Your task to perform on an android device: Open accessibility settings Image 0: 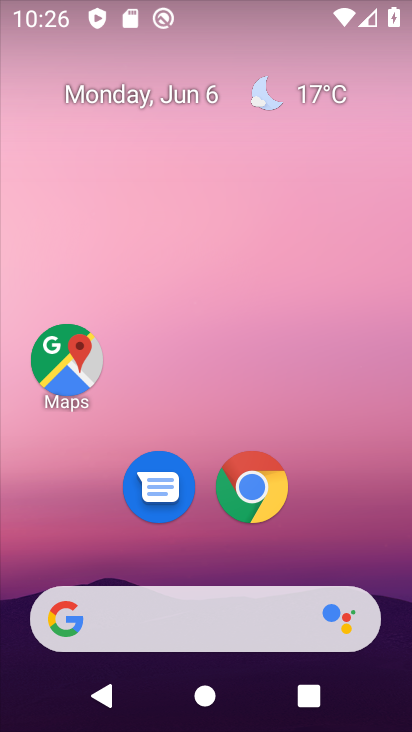
Step 0: drag from (158, 717) to (168, 43)
Your task to perform on an android device: Open accessibility settings Image 1: 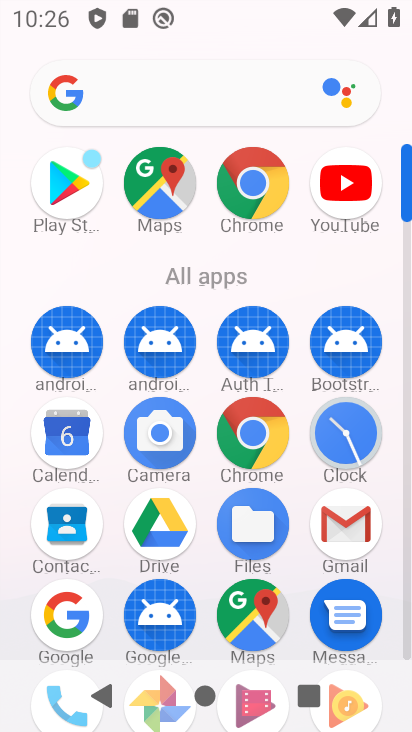
Step 1: drag from (106, 498) to (107, 116)
Your task to perform on an android device: Open accessibility settings Image 2: 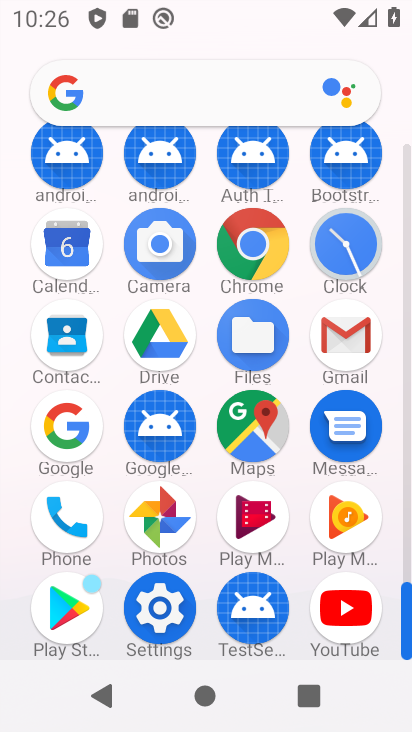
Step 2: click (153, 608)
Your task to perform on an android device: Open accessibility settings Image 3: 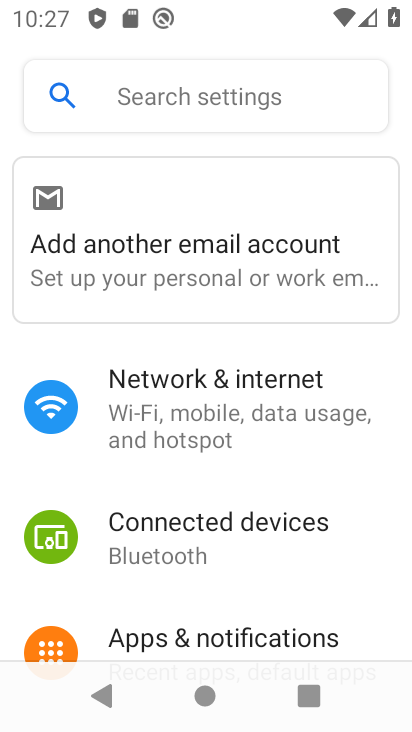
Step 3: drag from (238, 612) to (244, 127)
Your task to perform on an android device: Open accessibility settings Image 4: 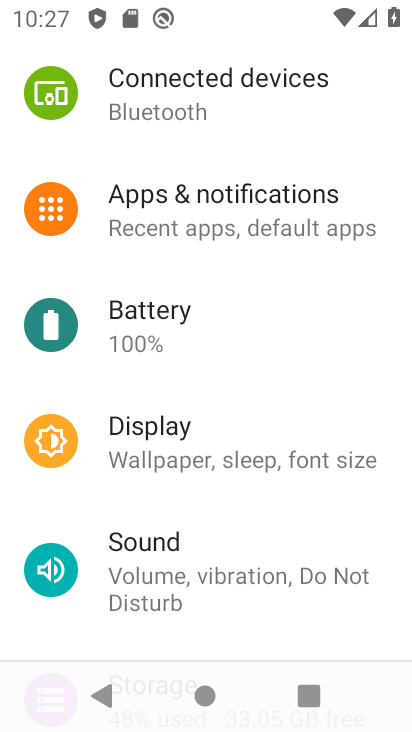
Step 4: drag from (201, 613) to (197, 142)
Your task to perform on an android device: Open accessibility settings Image 5: 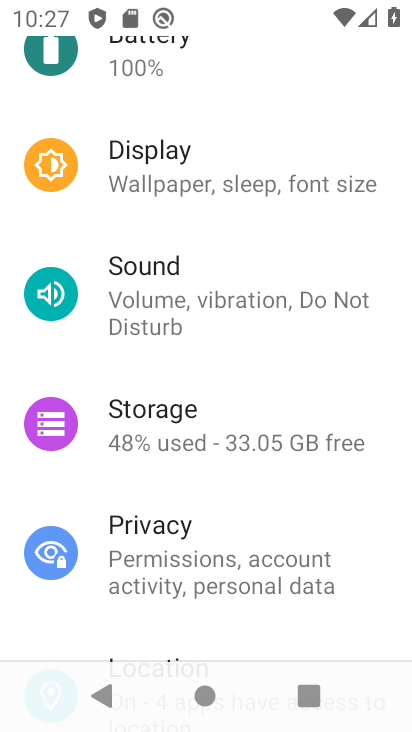
Step 5: drag from (268, 605) to (280, 76)
Your task to perform on an android device: Open accessibility settings Image 6: 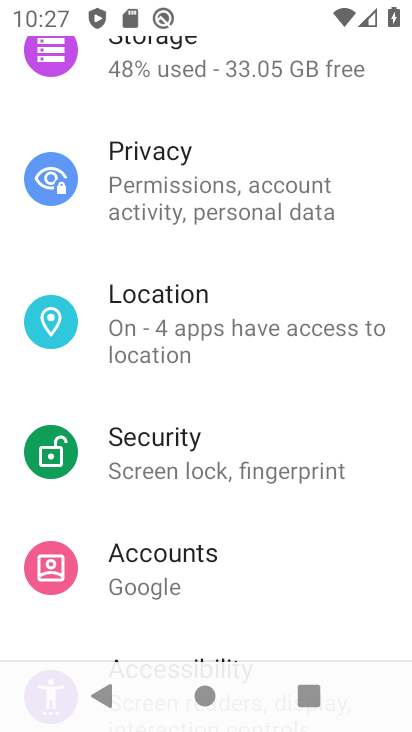
Step 6: drag from (224, 586) to (204, 5)
Your task to perform on an android device: Open accessibility settings Image 7: 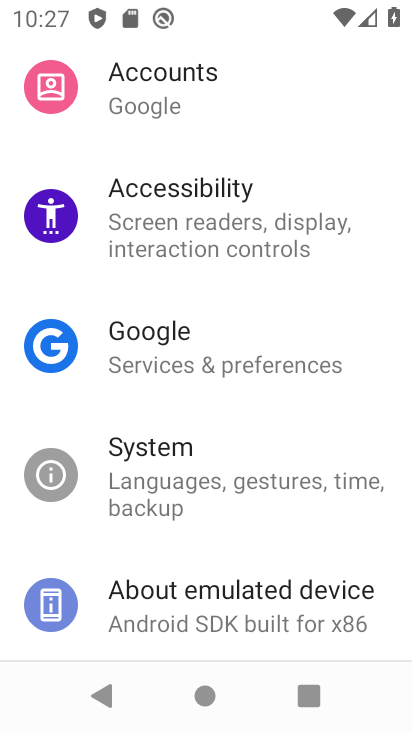
Step 7: click (178, 215)
Your task to perform on an android device: Open accessibility settings Image 8: 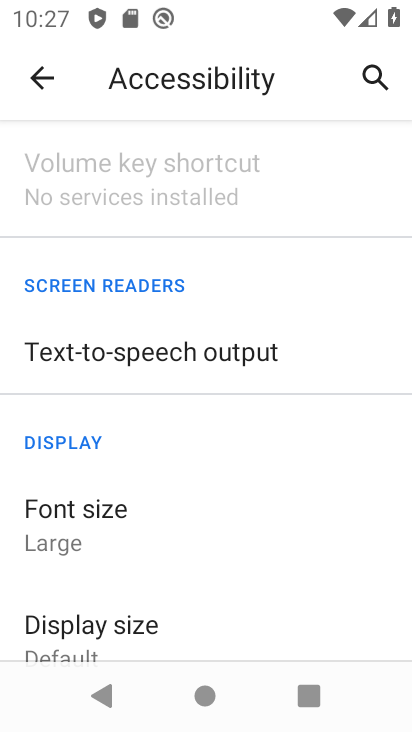
Step 8: task complete